Your task to perform on an android device: turn off wifi Image 0: 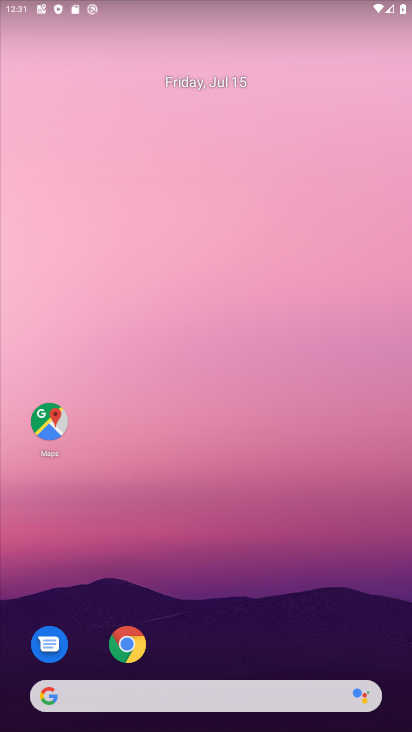
Step 0: drag from (132, 54) to (104, 486)
Your task to perform on an android device: turn off wifi Image 1: 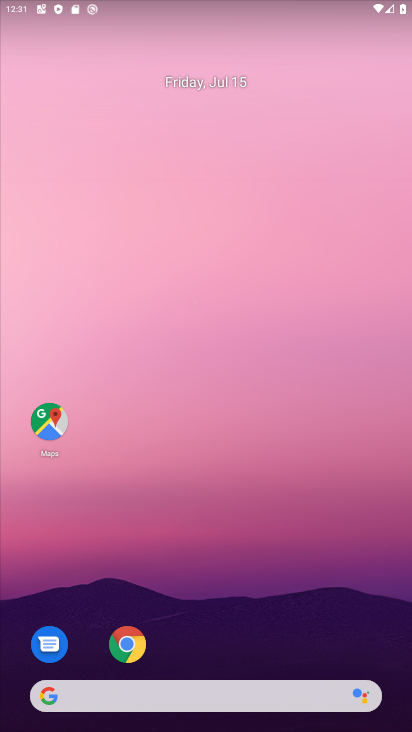
Step 1: drag from (108, 5) to (47, 408)
Your task to perform on an android device: turn off wifi Image 2: 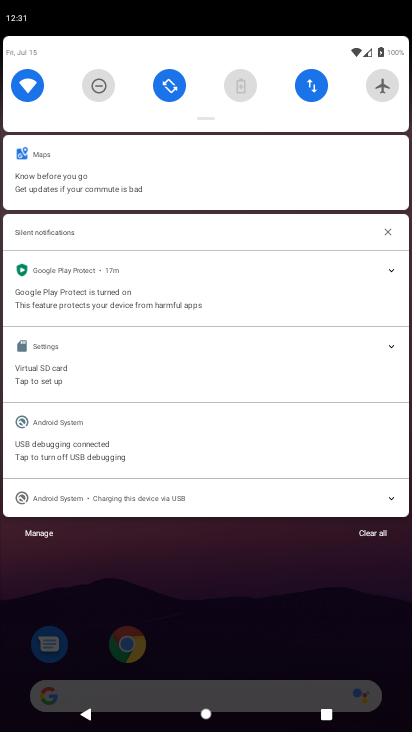
Step 2: click (21, 90)
Your task to perform on an android device: turn off wifi Image 3: 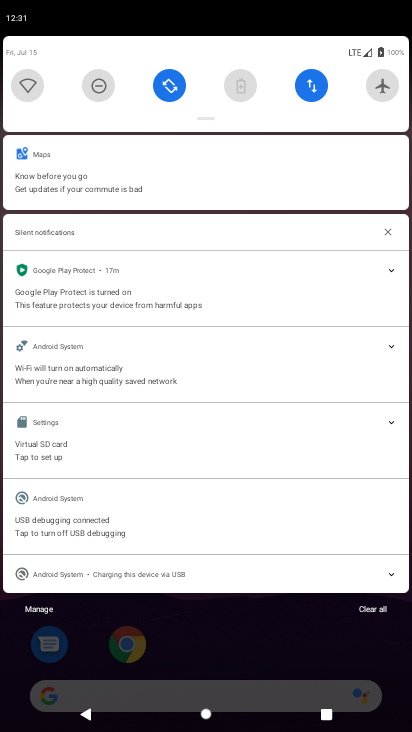
Step 3: task complete